Your task to perform on an android device: Add apple airpods to the cart on walmart.com Image 0: 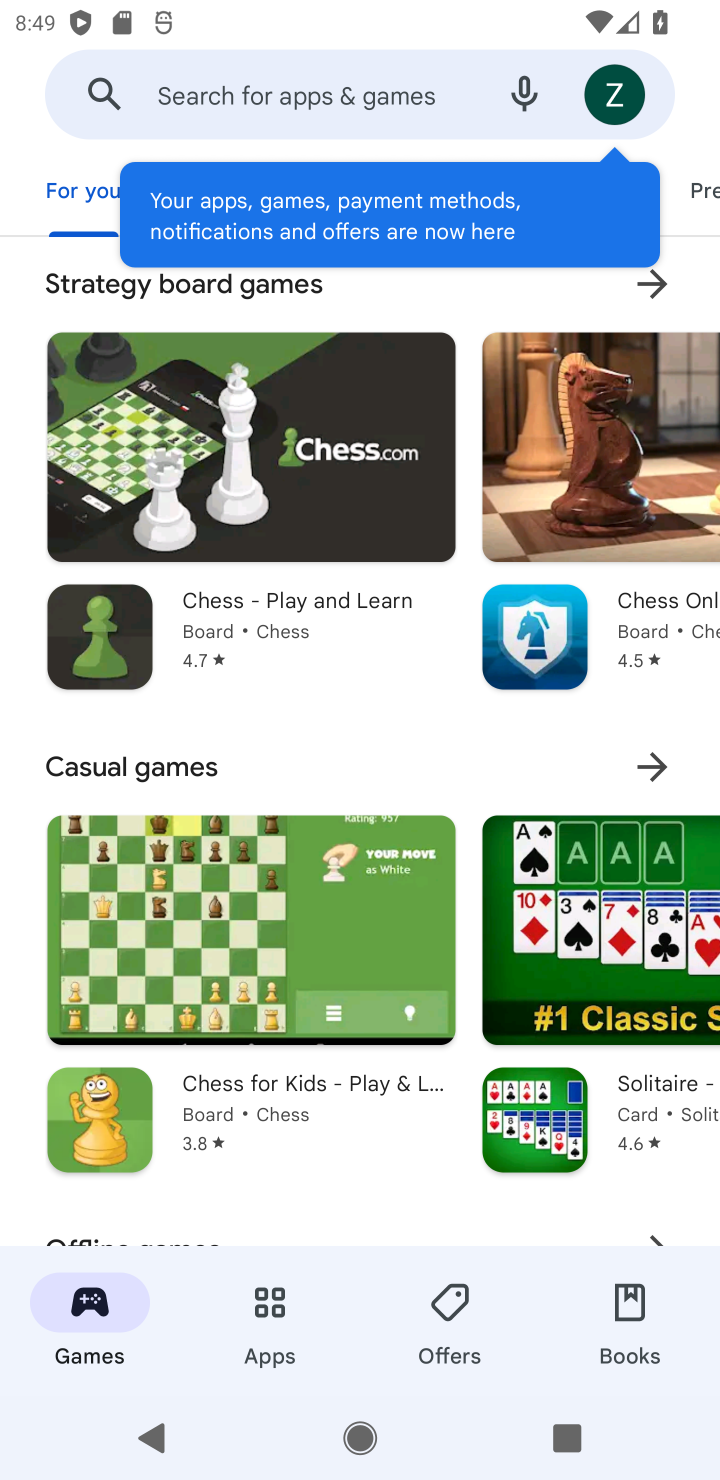
Step 0: press home button
Your task to perform on an android device: Add apple airpods to the cart on walmart.com Image 1: 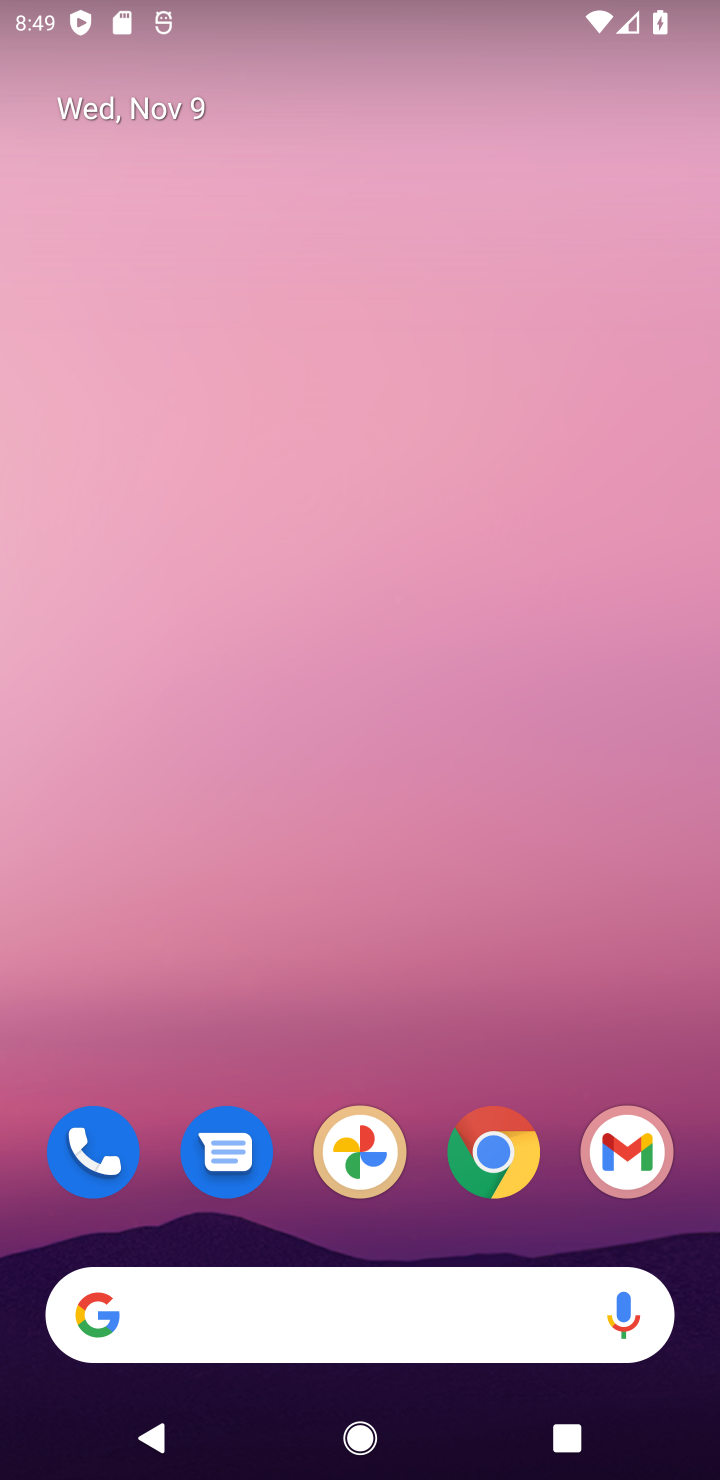
Step 1: click (484, 1148)
Your task to perform on an android device: Add apple airpods to the cart on walmart.com Image 2: 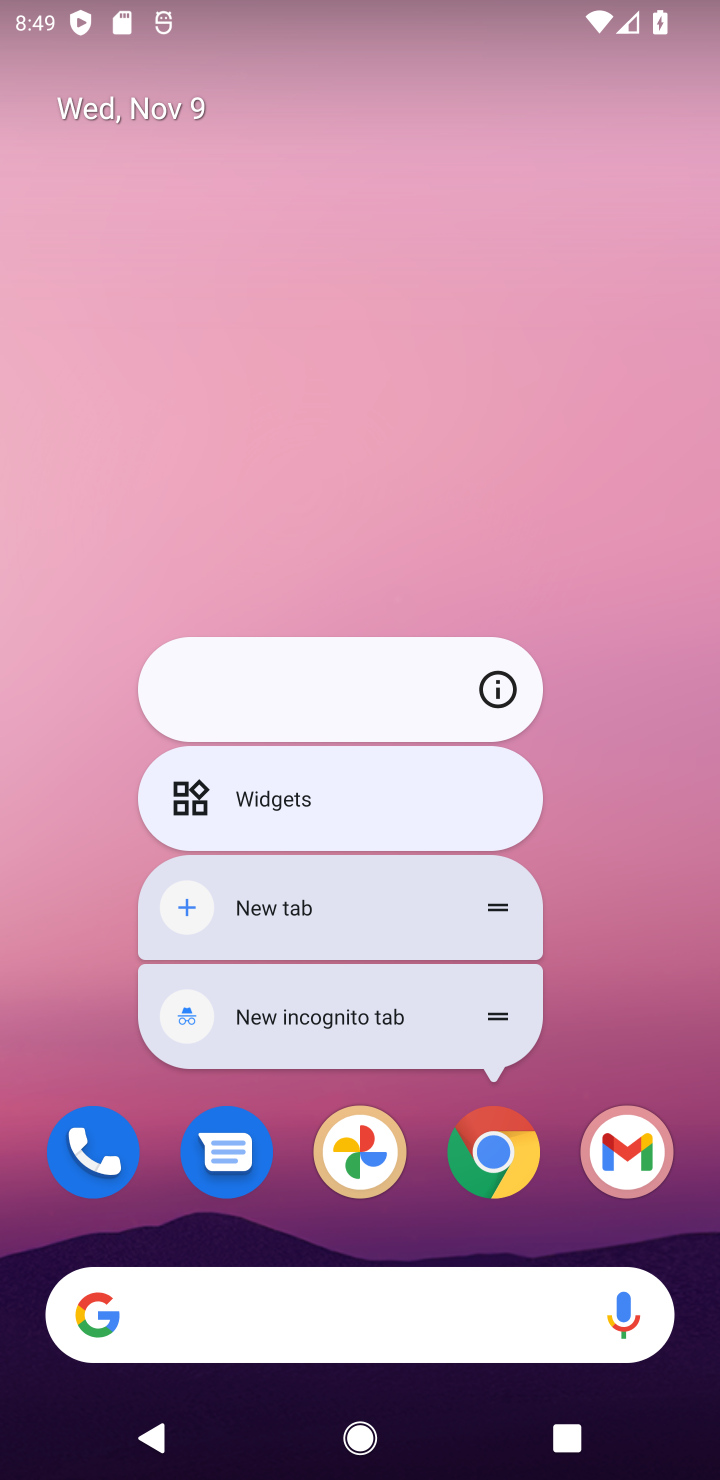
Step 2: click (484, 1151)
Your task to perform on an android device: Add apple airpods to the cart on walmart.com Image 3: 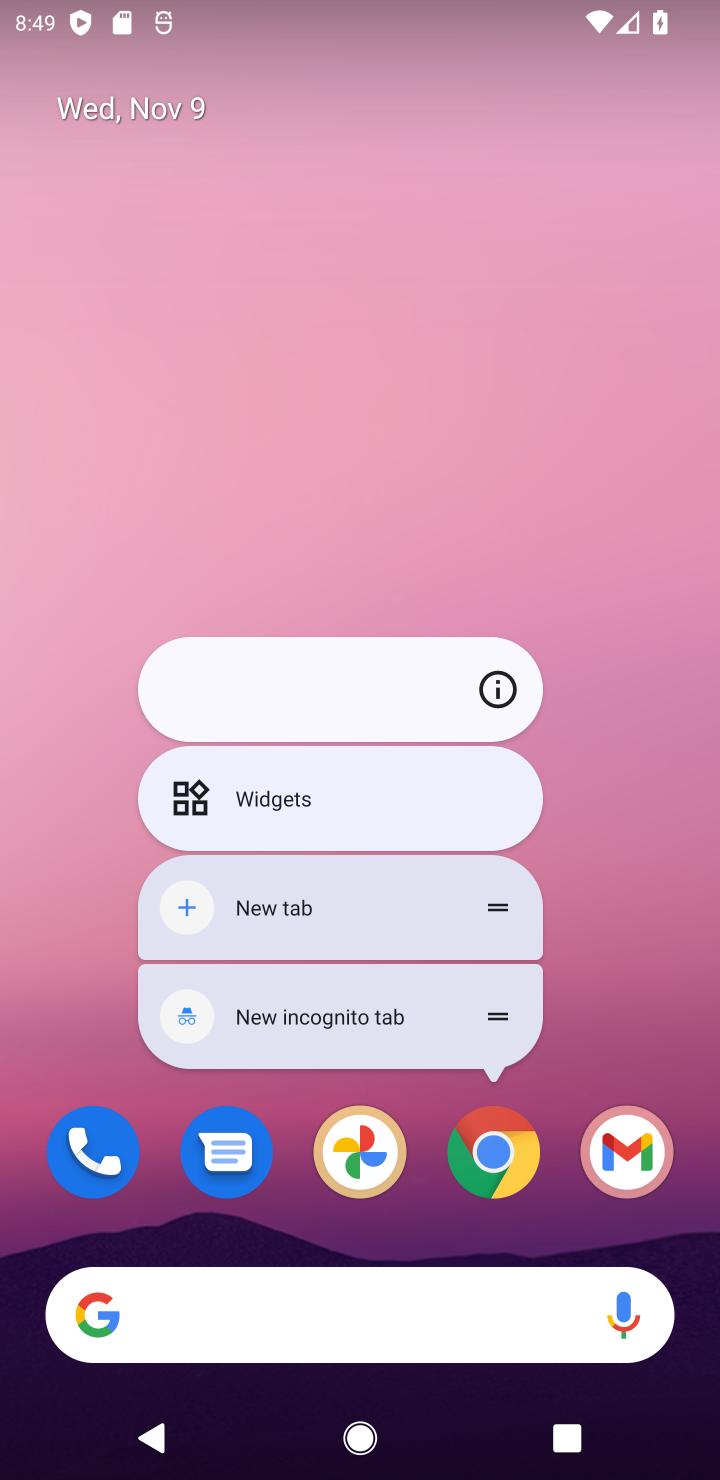
Step 3: click (493, 1157)
Your task to perform on an android device: Add apple airpods to the cart on walmart.com Image 4: 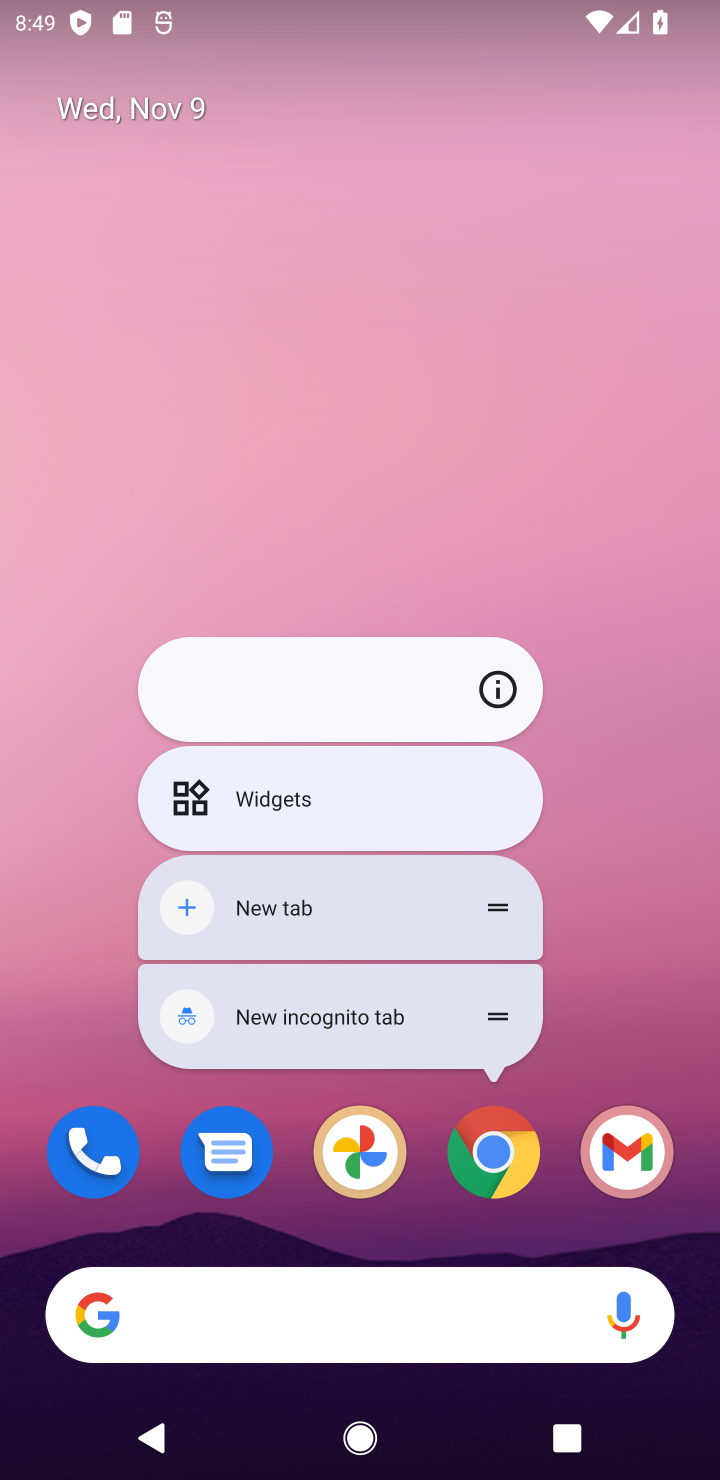
Step 4: click (493, 1162)
Your task to perform on an android device: Add apple airpods to the cart on walmart.com Image 5: 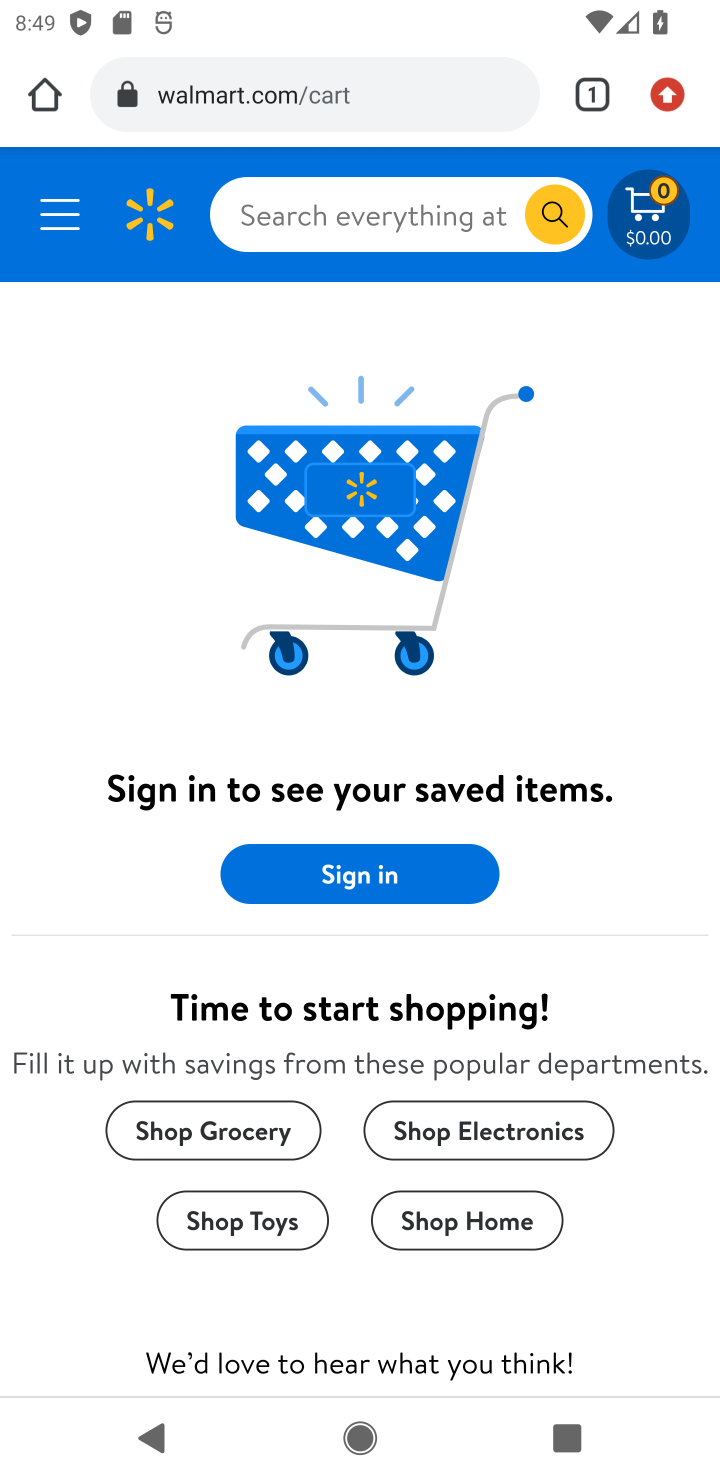
Step 5: click (361, 197)
Your task to perform on an android device: Add apple airpods to the cart on walmart.com Image 6: 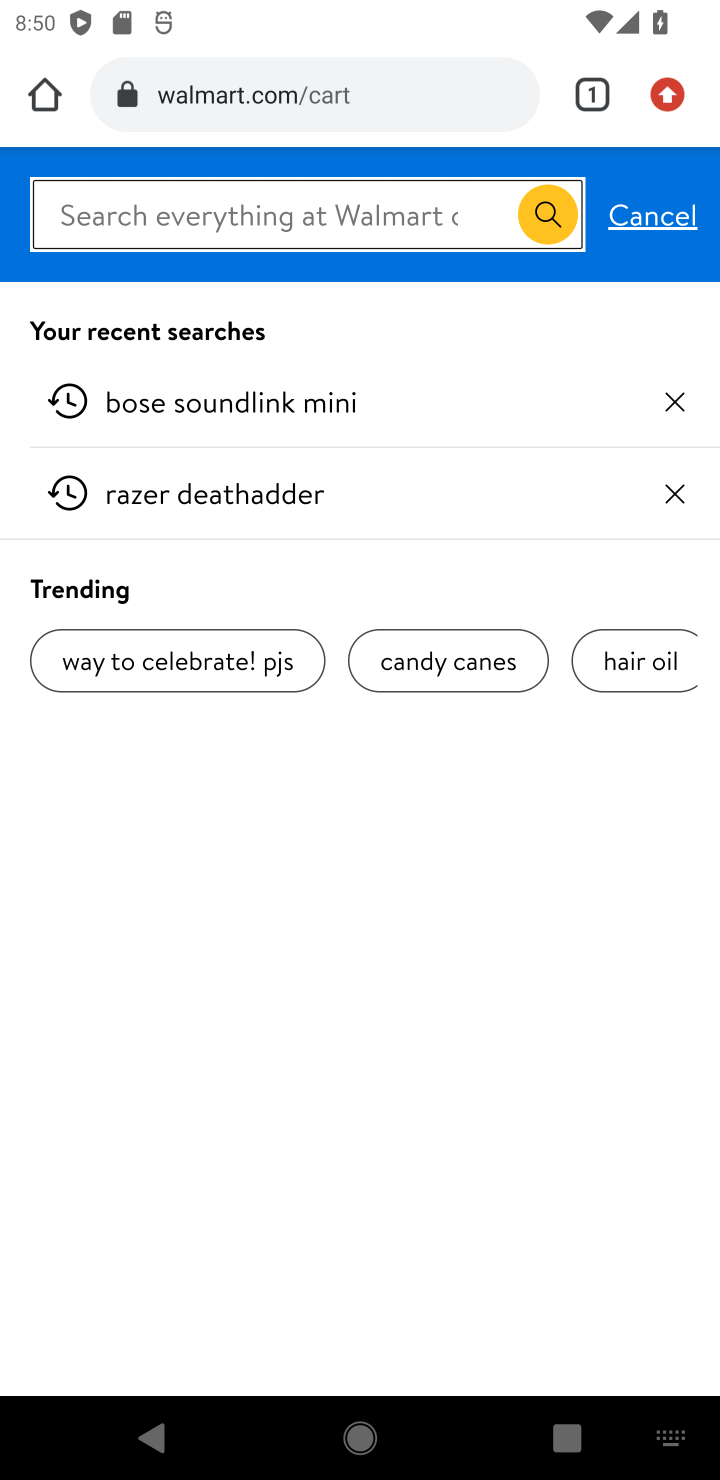
Step 6: type "apple airpods"
Your task to perform on an android device: Add apple airpods to the cart on walmart.com Image 7: 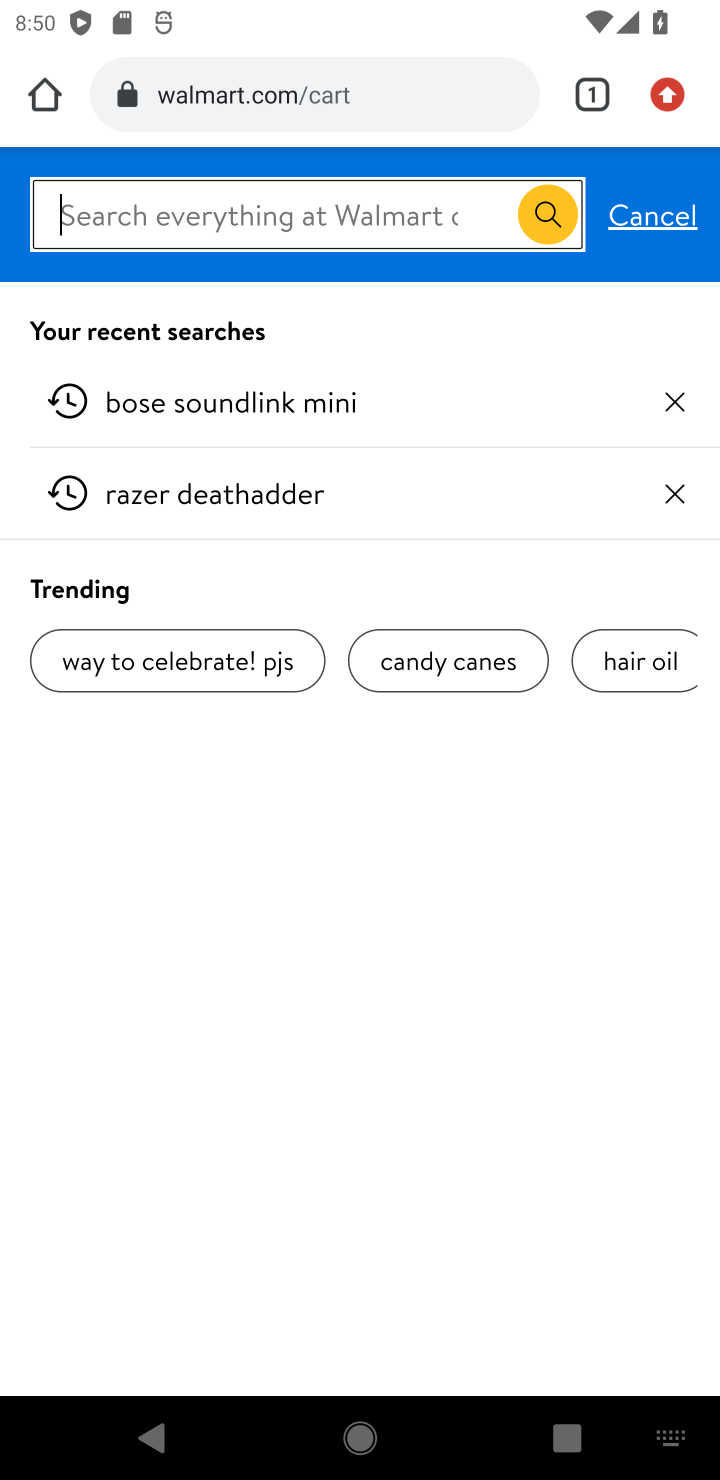
Step 7: press enter
Your task to perform on an android device: Add apple airpods to the cart on walmart.com Image 8: 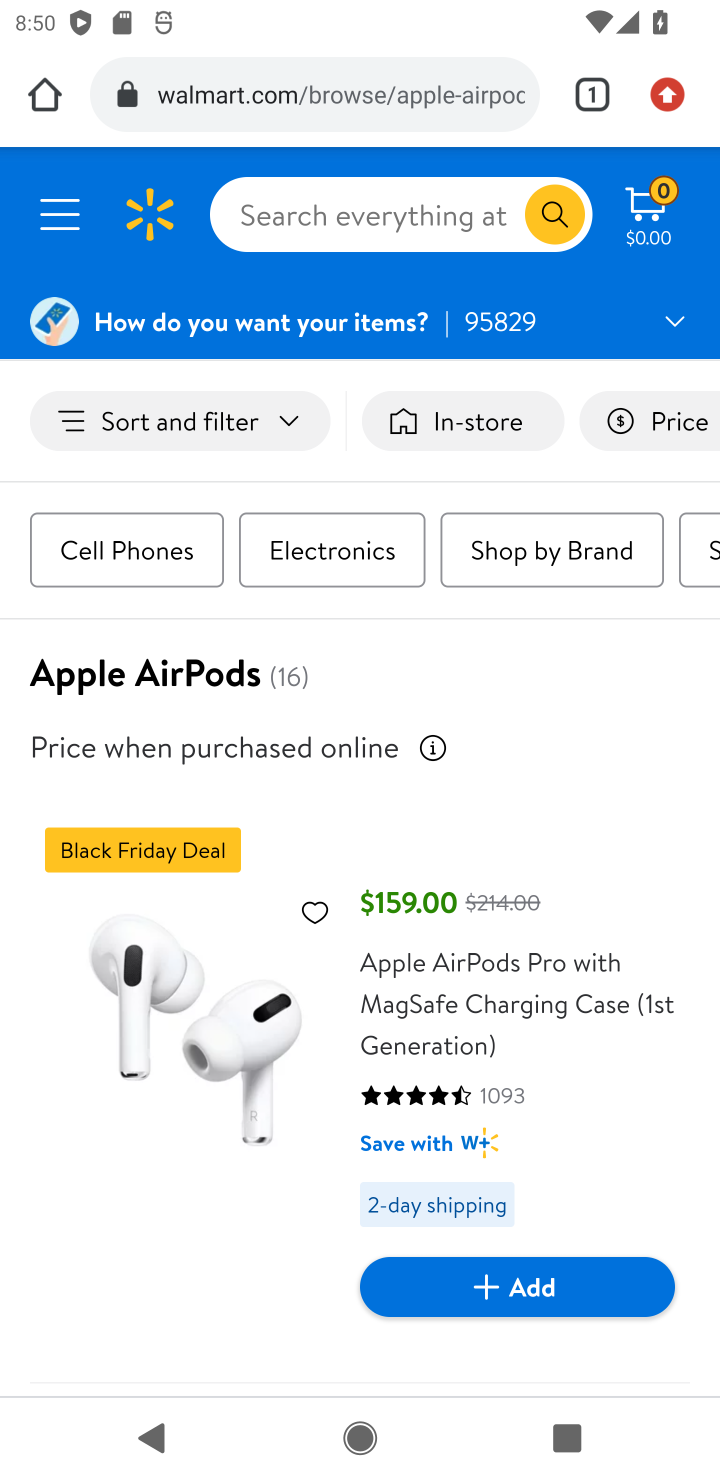
Step 8: click (550, 1285)
Your task to perform on an android device: Add apple airpods to the cart on walmart.com Image 9: 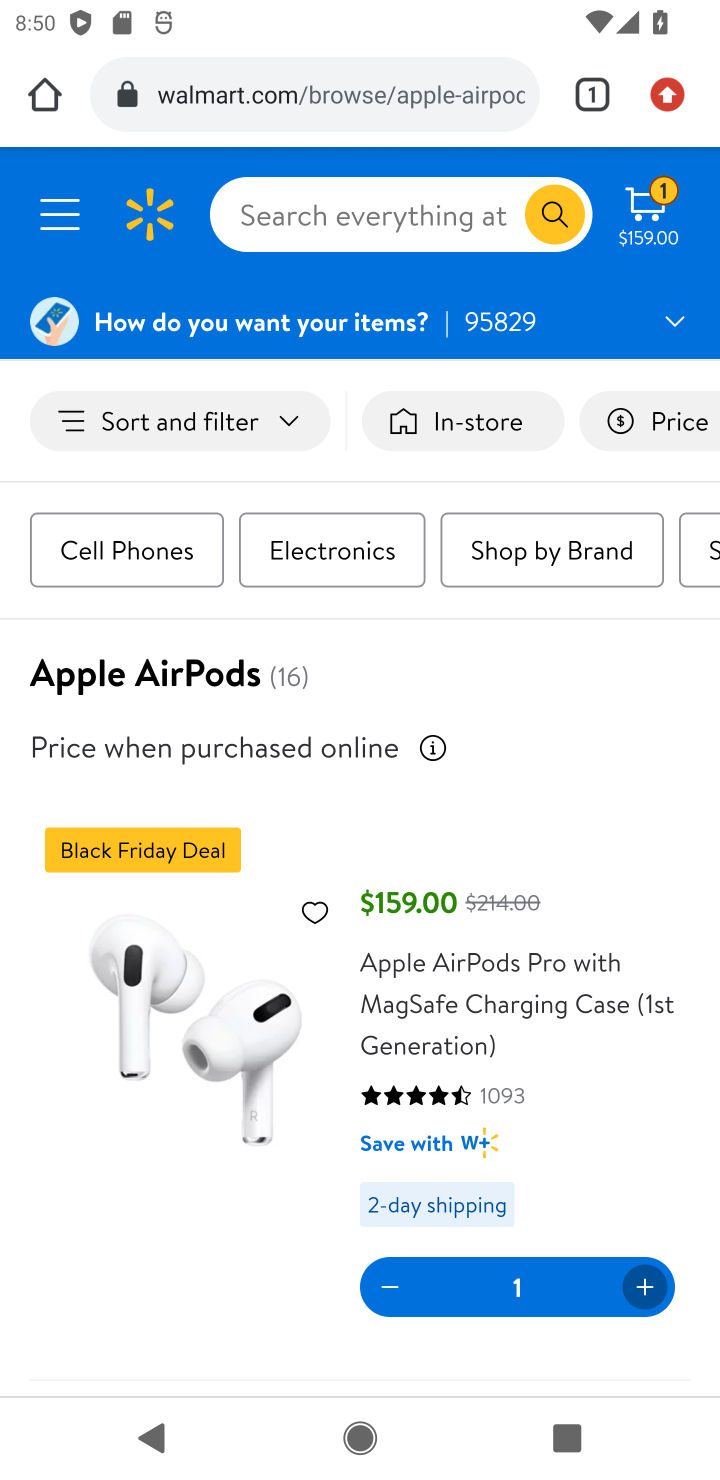
Step 9: click (644, 195)
Your task to perform on an android device: Add apple airpods to the cart on walmart.com Image 10: 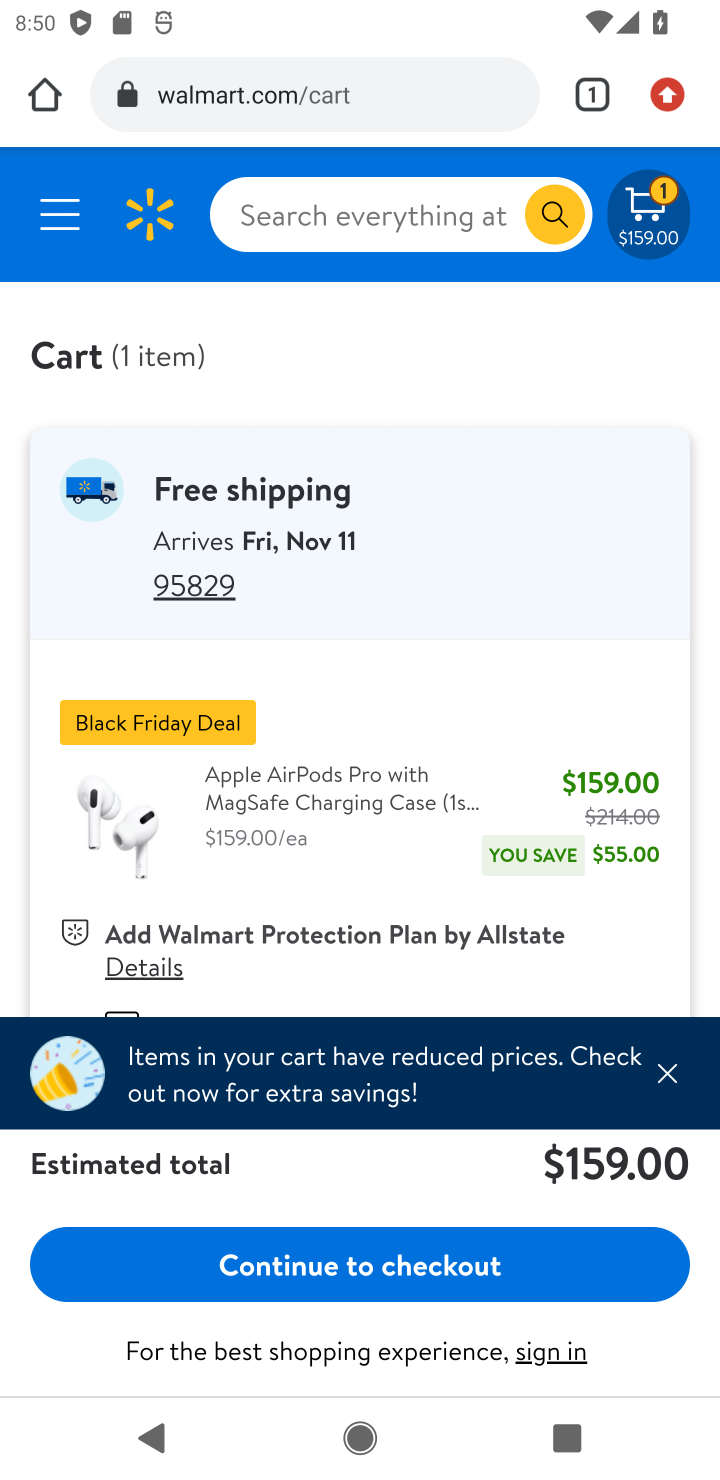
Step 10: task complete